Your task to perform on an android device: Open Amazon Image 0: 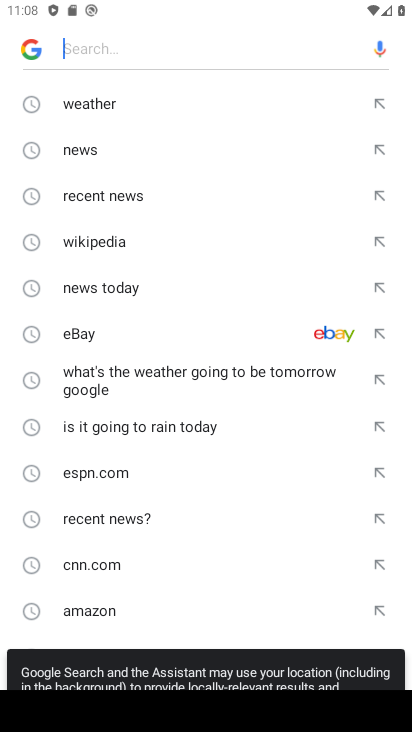
Step 0: press home button
Your task to perform on an android device: Open Amazon Image 1: 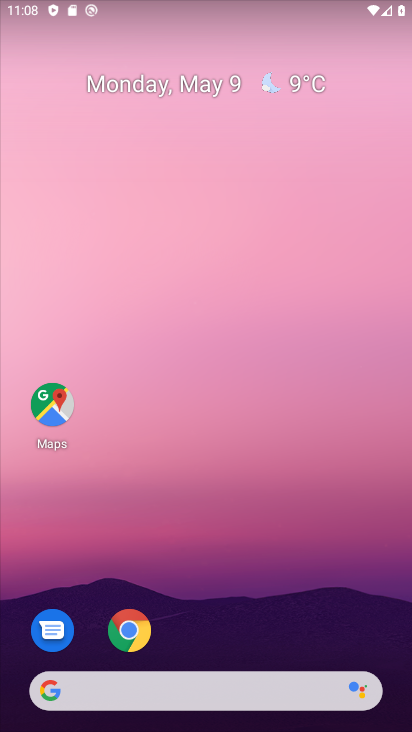
Step 1: click (145, 629)
Your task to perform on an android device: Open Amazon Image 2: 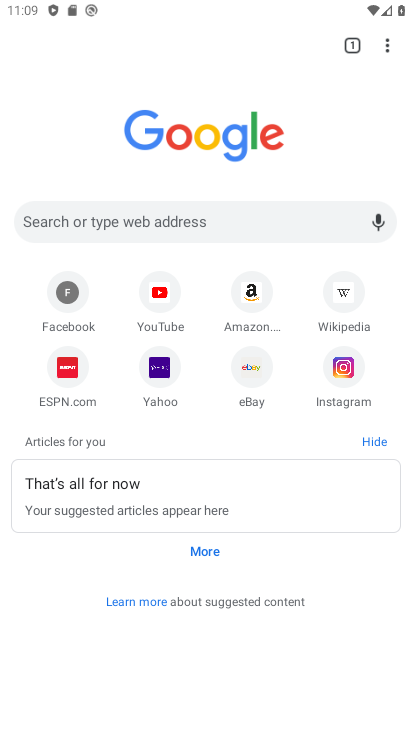
Step 2: click (250, 286)
Your task to perform on an android device: Open Amazon Image 3: 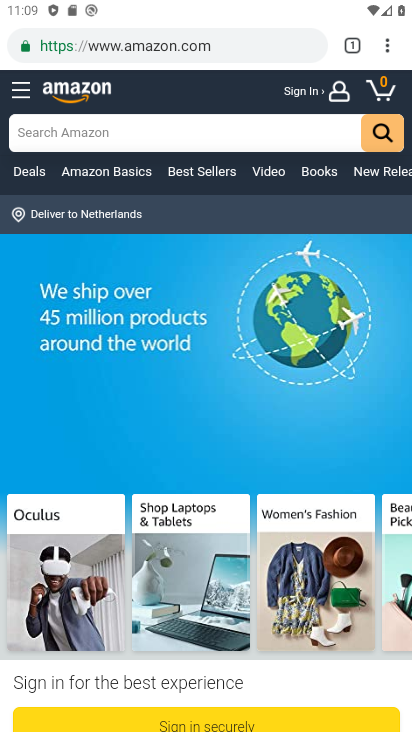
Step 3: task complete